Your task to perform on an android device: Open maps Image 0: 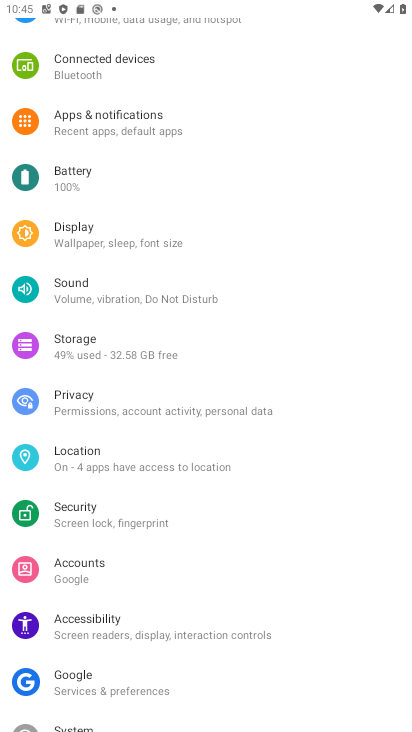
Step 0: press home button
Your task to perform on an android device: Open maps Image 1: 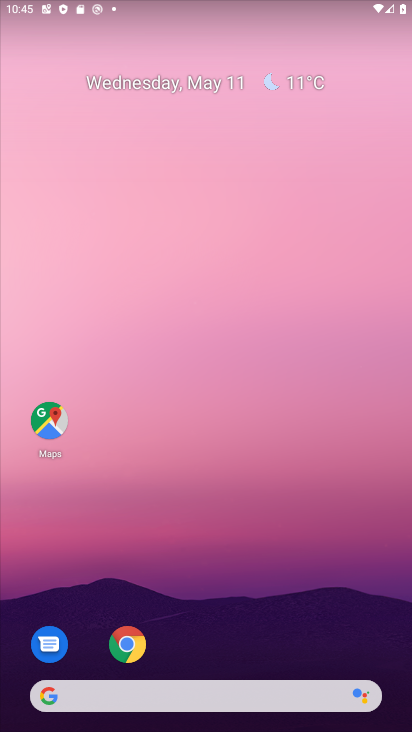
Step 1: click (40, 411)
Your task to perform on an android device: Open maps Image 2: 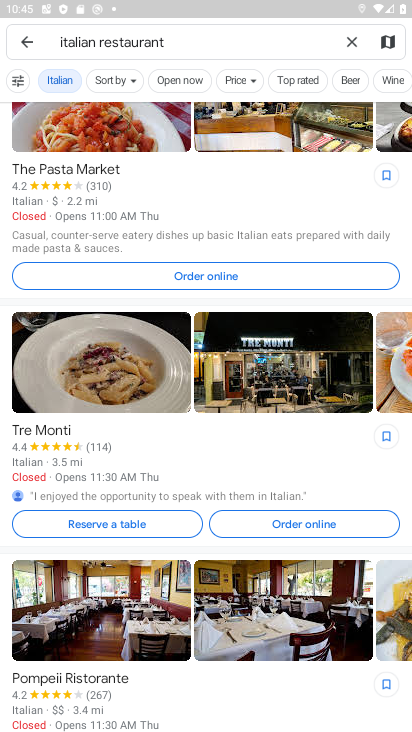
Step 2: click (25, 41)
Your task to perform on an android device: Open maps Image 3: 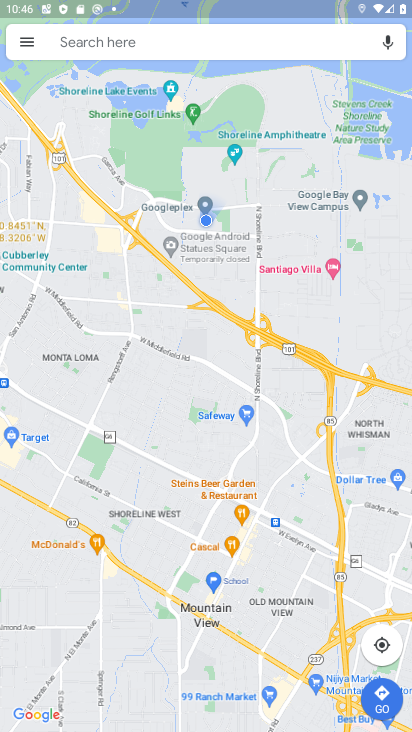
Step 3: click (234, 539)
Your task to perform on an android device: Open maps Image 4: 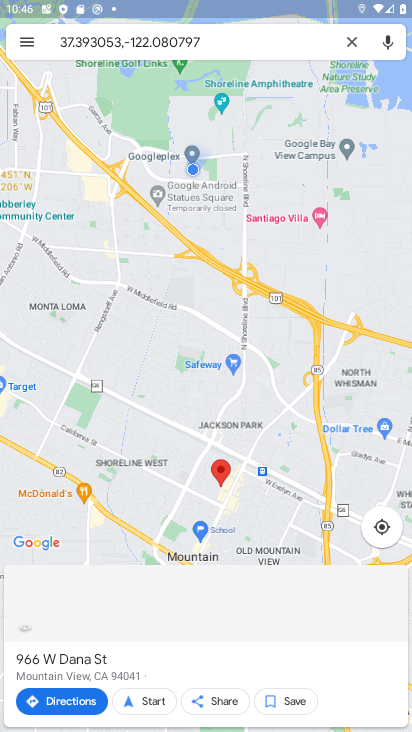
Step 4: task complete